Your task to perform on an android device: clear all cookies in the chrome app Image 0: 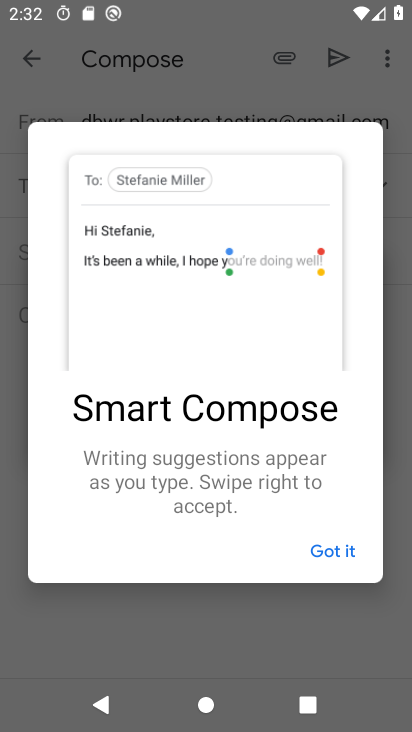
Step 0: press home button
Your task to perform on an android device: clear all cookies in the chrome app Image 1: 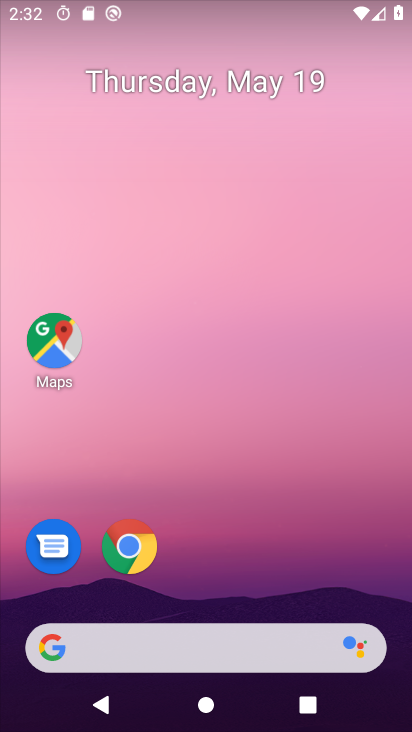
Step 1: click (127, 539)
Your task to perform on an android device: clear all cookies in the chrome app Image 2: 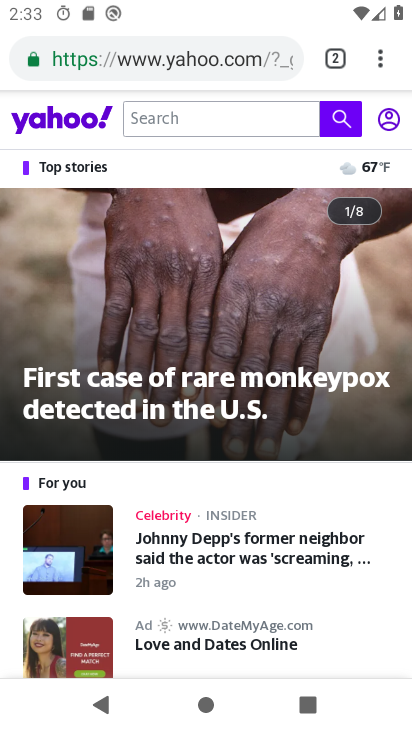
Step 2: click (385, 58)
Your task to perform on an android device: clear all cookies in the chrome app Image 3: 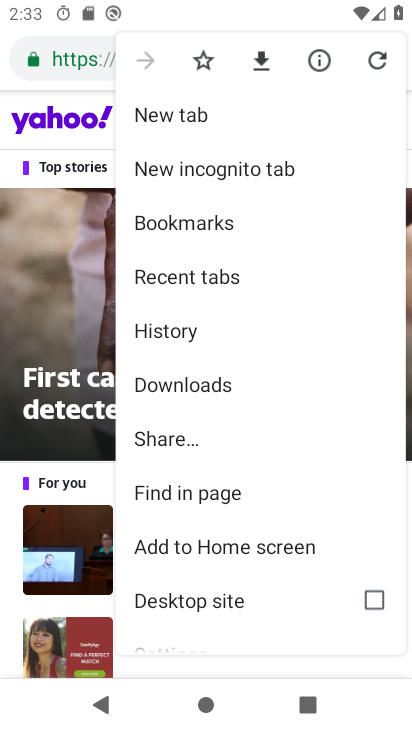
Step 3: drag from (262, 619) to (284, 144)
Your task to perform on an android device: clear all cookies in the chrome app Image 4: 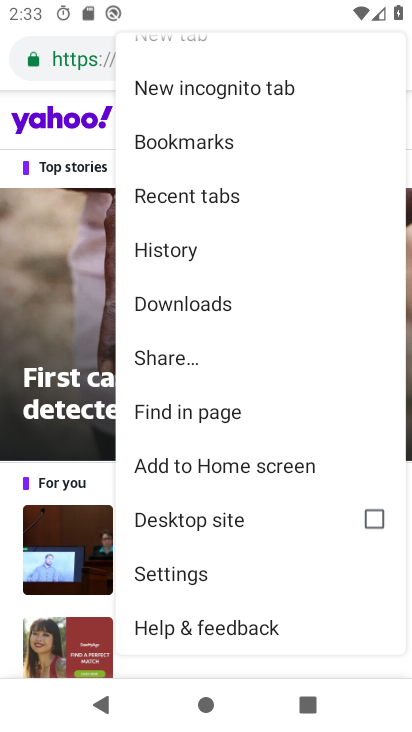
Step 4: click (209, 247)
Your task to perform on an android device: clear all cookies in the chrome app Image 5: 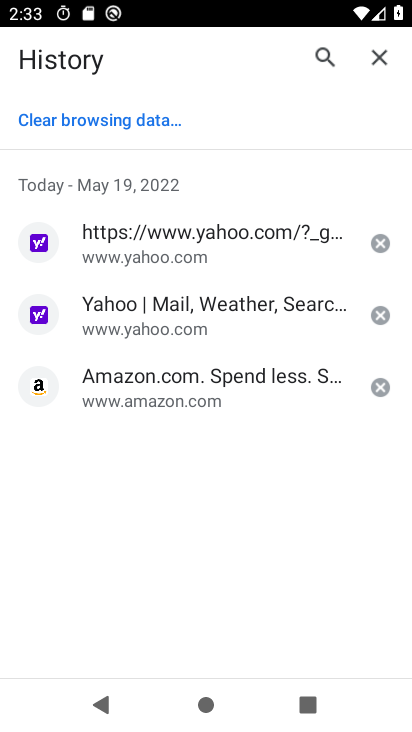
Step 5: click (101, 118)
Your task to perform on an android device: clear all cookies in the chrome app Image 6: 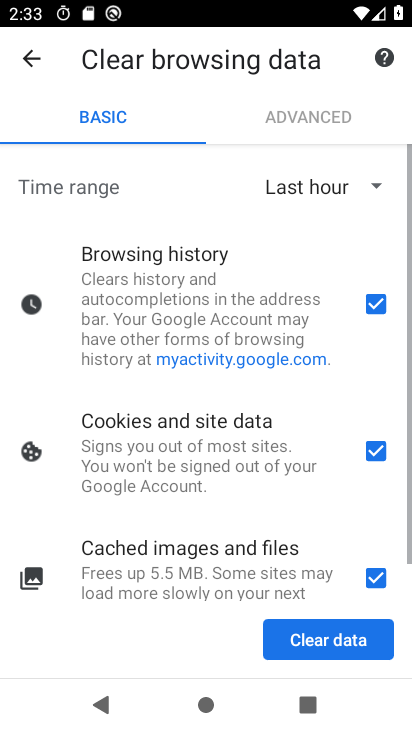
Step 6: click (371, 299)
Your task to perform on an android device: clear all cookies in the chrome app Image 7: 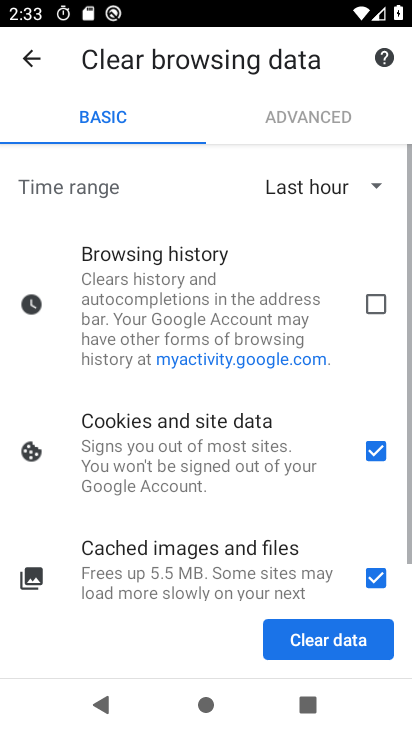
Step 7: click (369, 575)
Your task to perform on an android device: clear all cookies in the chrome app Image 8: 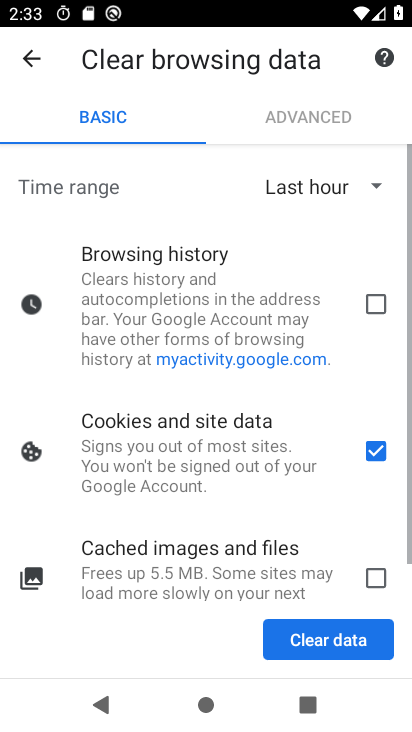
Step 8: click (331, 638)
Your task to perform on an android device: clear all cookies in the chrome app Image 9: 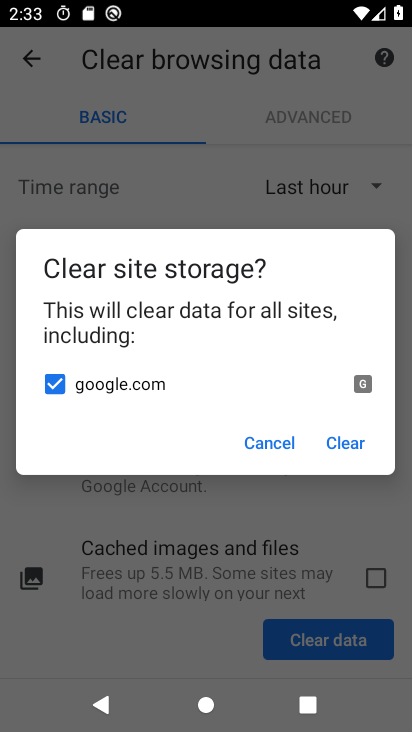
Step 9: click (348, 449)
Your task to perform on an android device: clear all cookies in the chrome app Image 10: 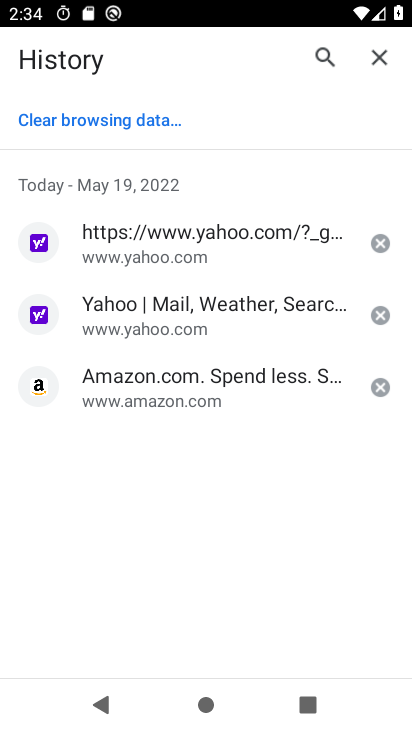
Step 10: task complete